Your task to perform on an android device: turn off notifications in google photos Image 0: 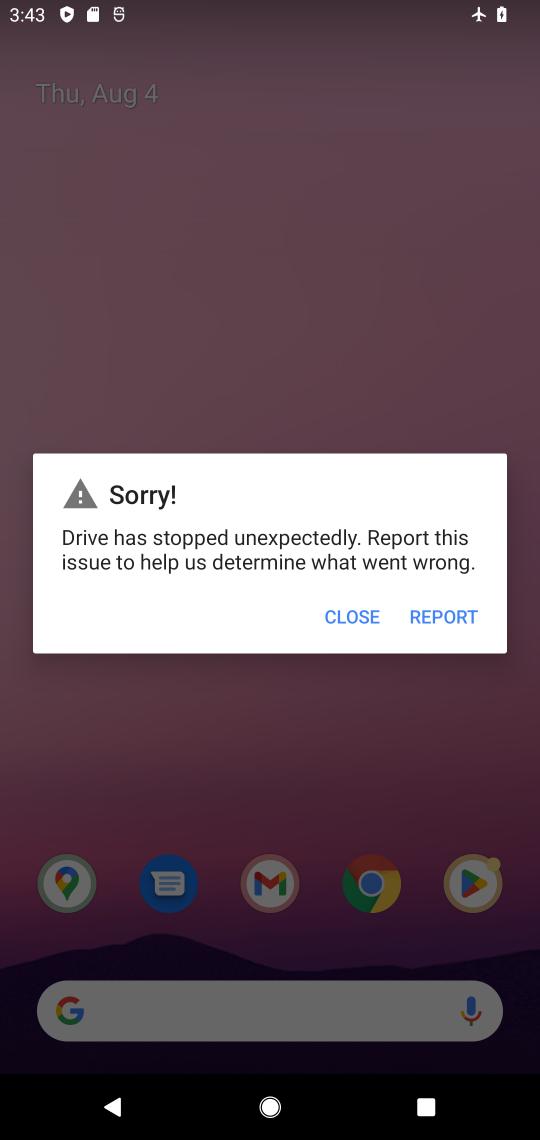
Step 0: press back button
Your task to perform on an android device: turn off notifications in google photos Image 1: 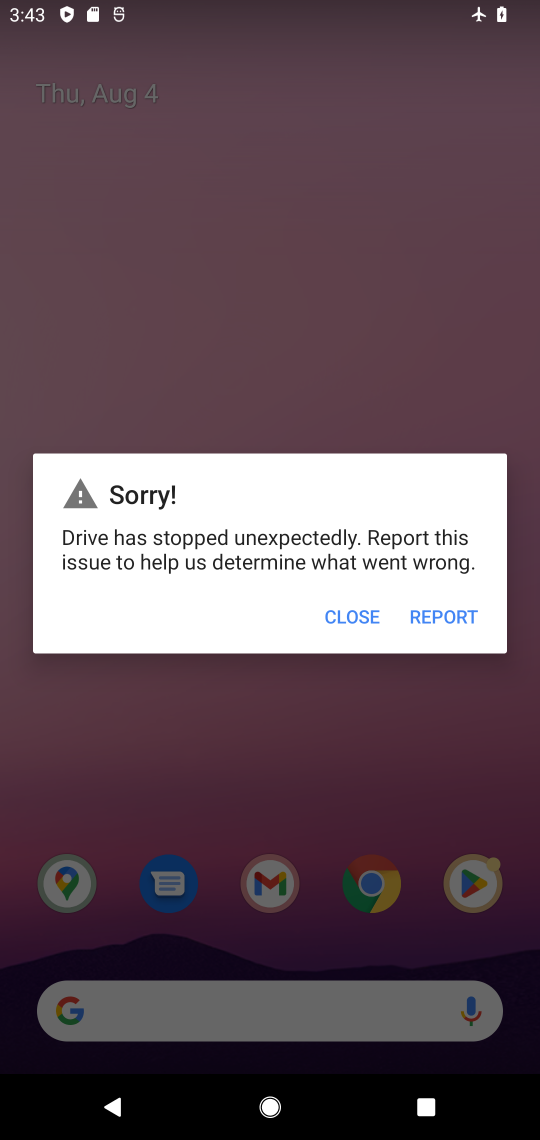
Step 1: click (367, 607)
Your task to perform on an android device: turn off notifications in google photos Image 2: 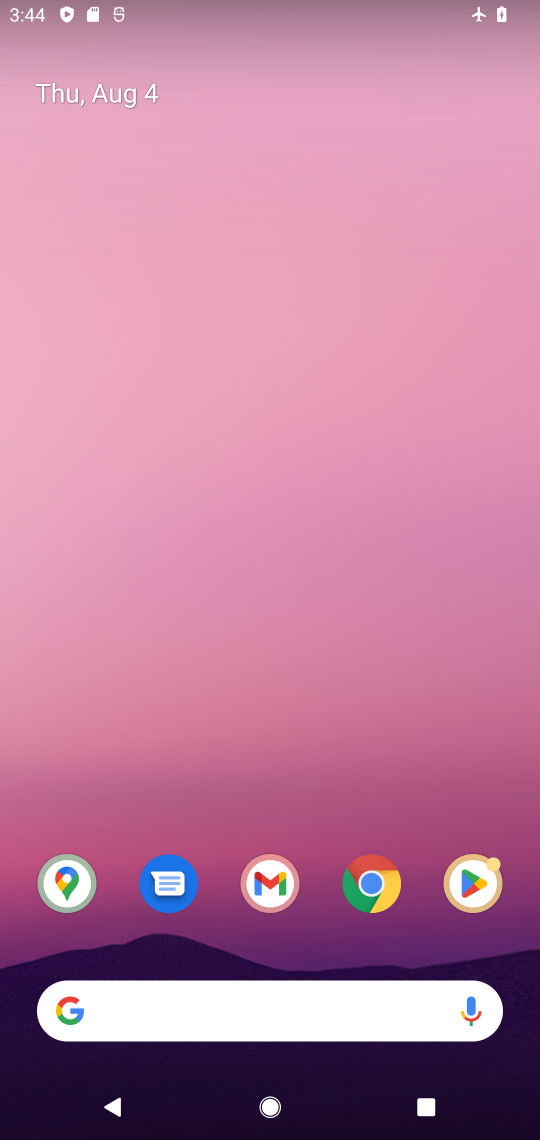
Step 2: drag from (407, 796) to (163, 9)
Your task to perform on an android device: turn off notifications in google photos Image 3: 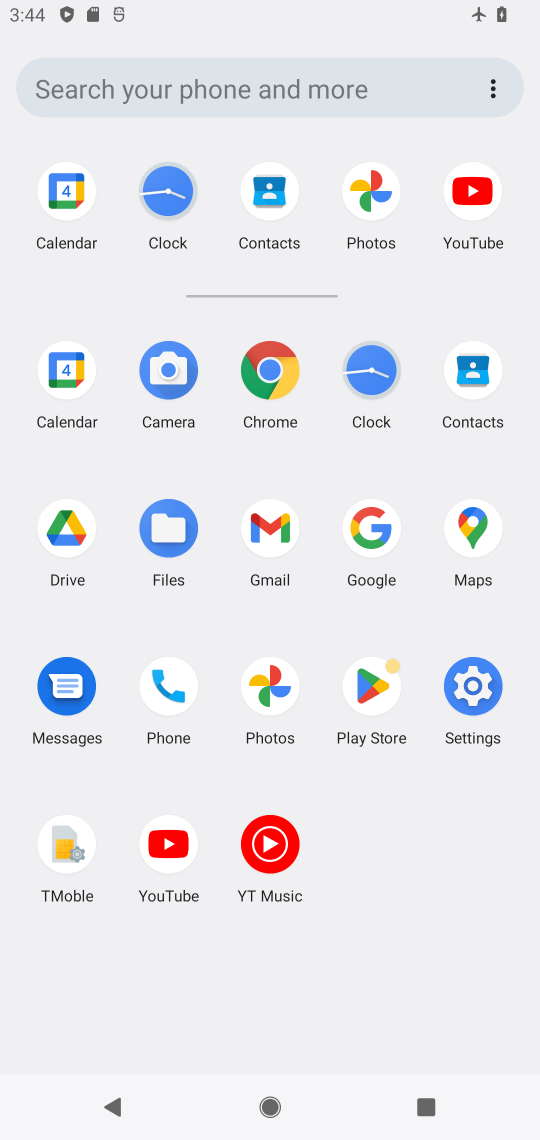
Step 3: click (268, 679)
Your task to perform on an android device: turn off notifications in google photos Image 4: 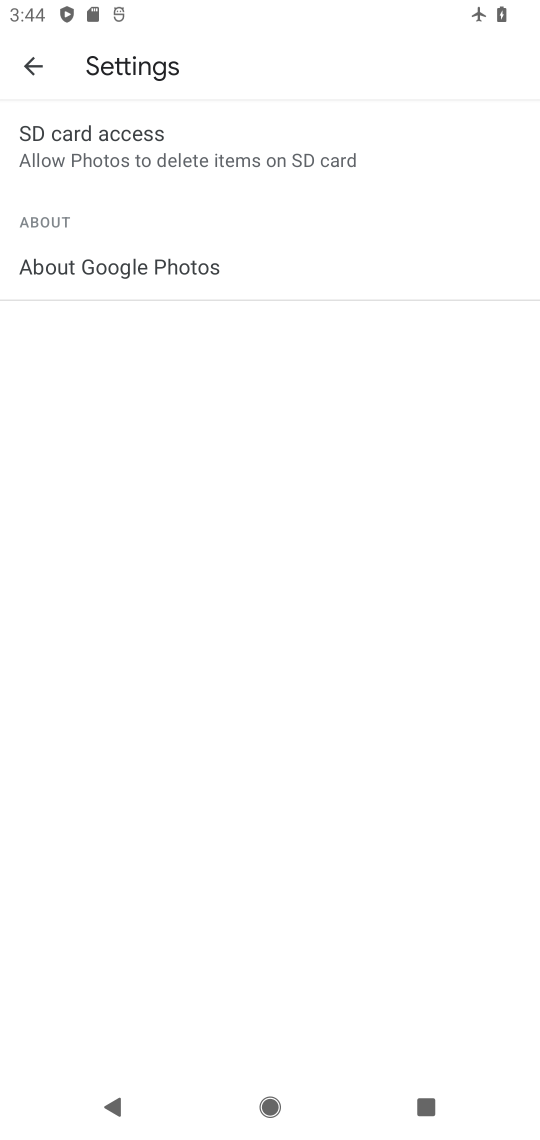
Step 4: press back button
Your task to perform on an android device: turn off notifications in google photos Image 5: 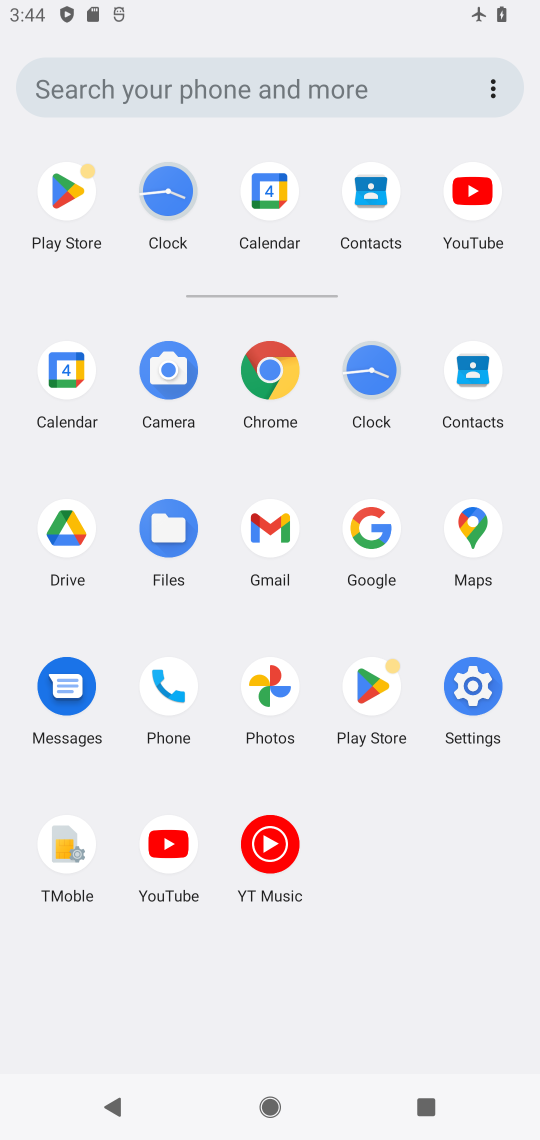
Step 5: click (260, 702)
Your task to perform on an android device: turn off notifications in google photos Image 6: 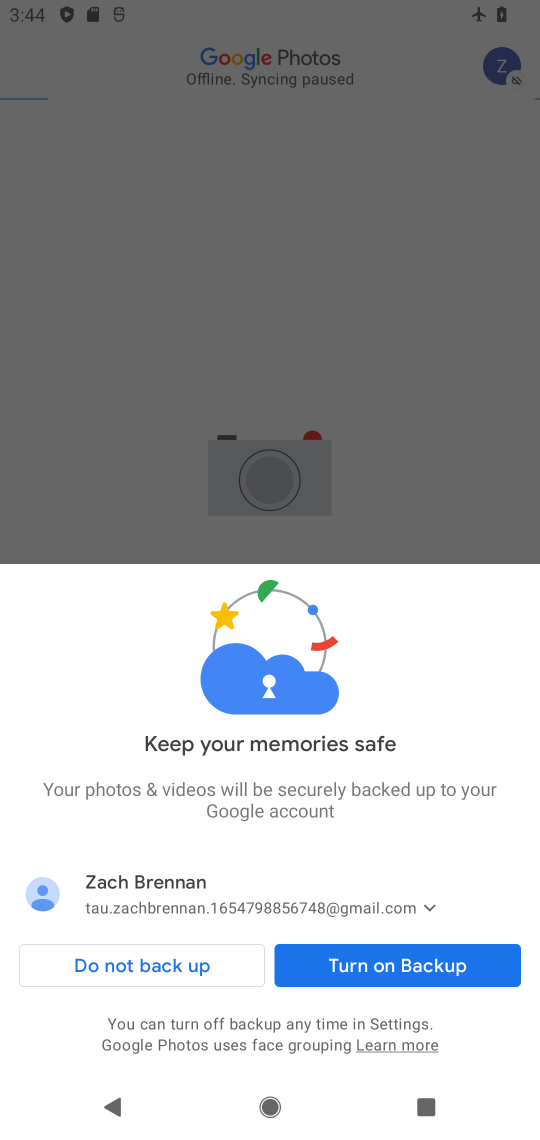
Step 6: click (371, 956)
Your task to perform on an android device: turn off notifications in google photos Image 7: 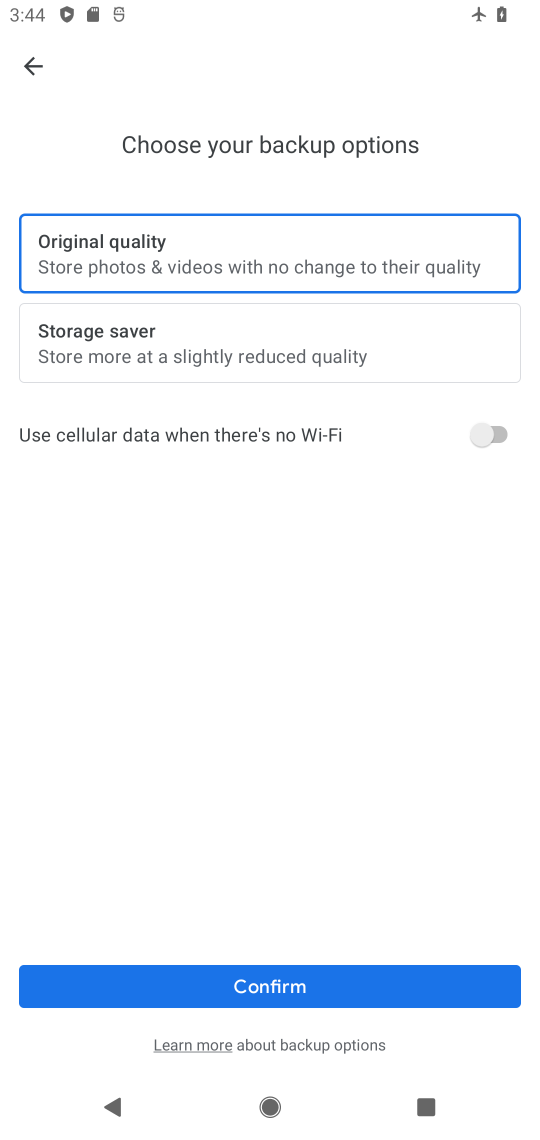
Step 7: click (268, 991)
Your task to perform on an android device: turn off notifications in google photos Image 8: 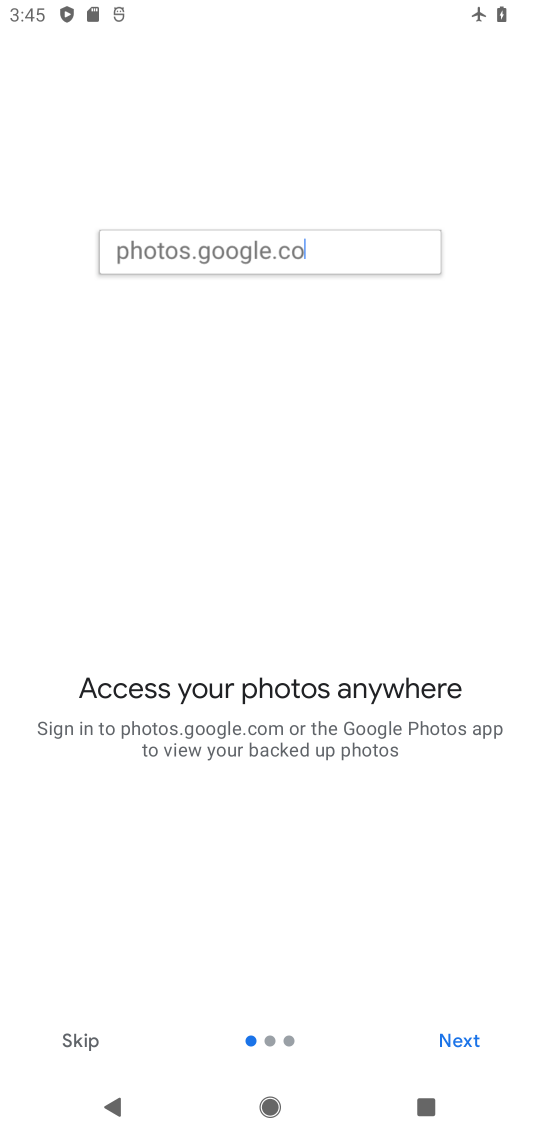
Step 8: click (461, 1041)
Your task to perform on an android device: turn off notifications in google photos Image 9: 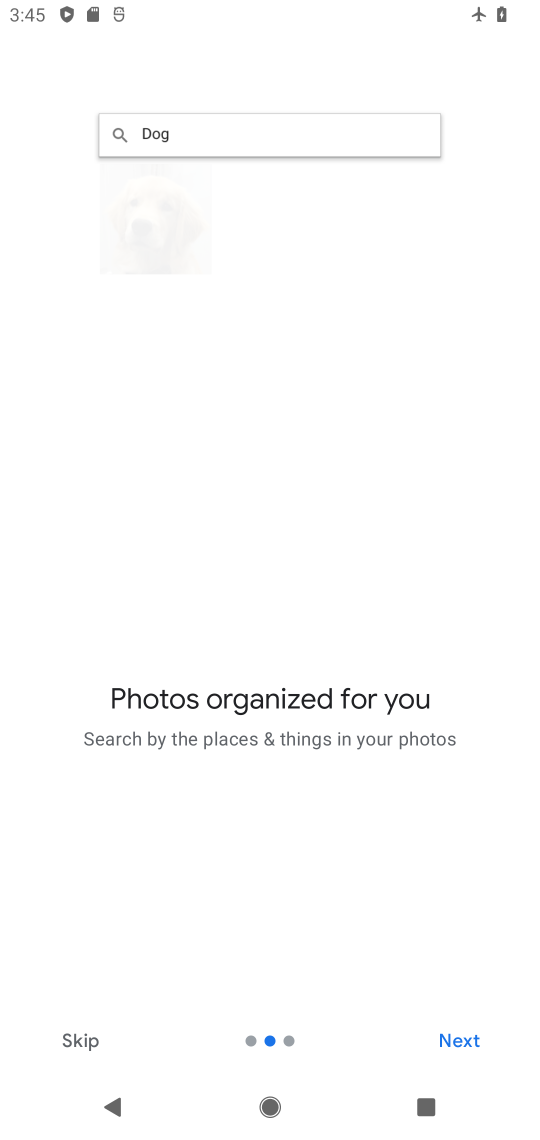
Step 9: click (461, 1041)
Your task to perform on an android device: turn off notifications in google photos Image 10: 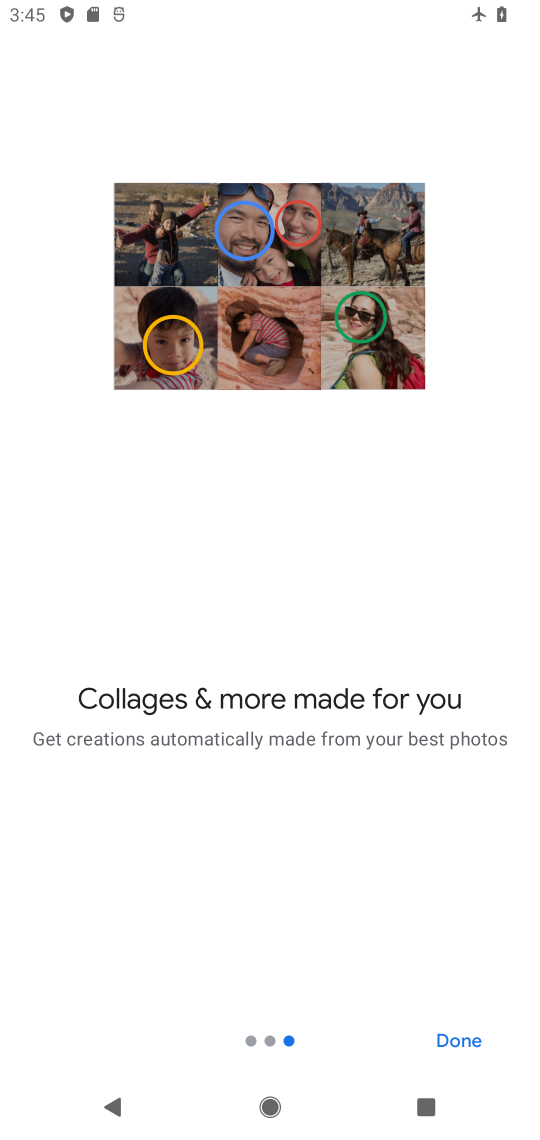
Step 10: click (461, 1041)
Your task to perform on an android device: turn off notifications in google photos Image 11: 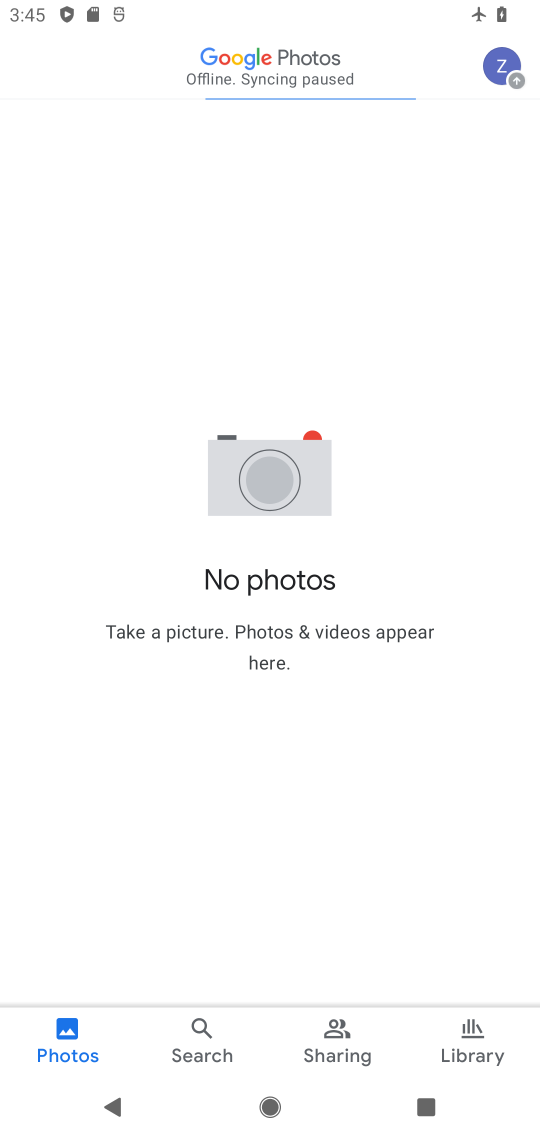
Step 11: click (493, 64)
Your task to perform on an android device: turn off notifications in google photos Image 12: 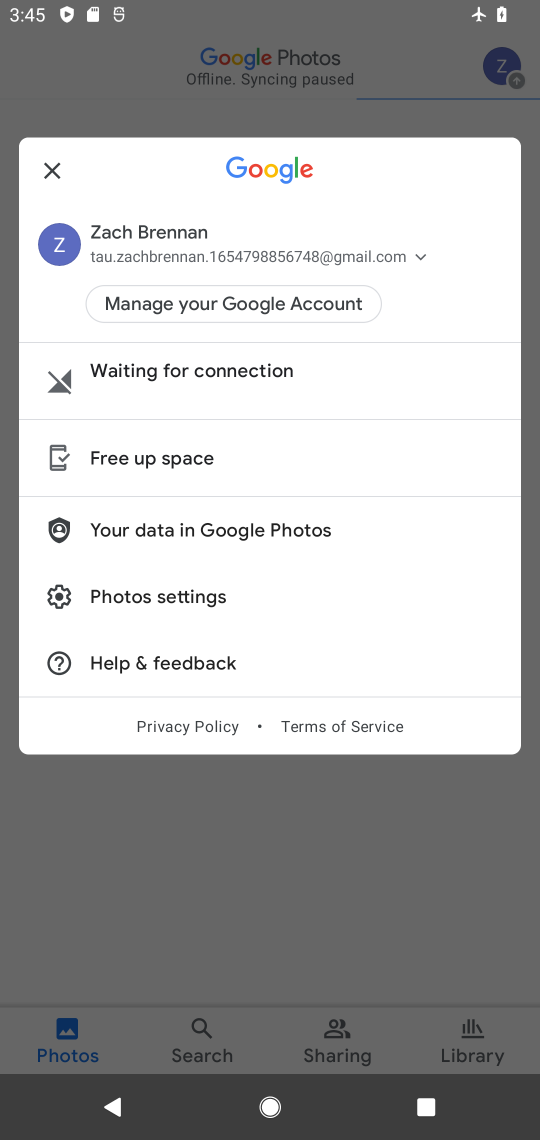
Step 12: click (127, 602)
Your task to perform on an android device: turn off notifications in google photos Image 13: 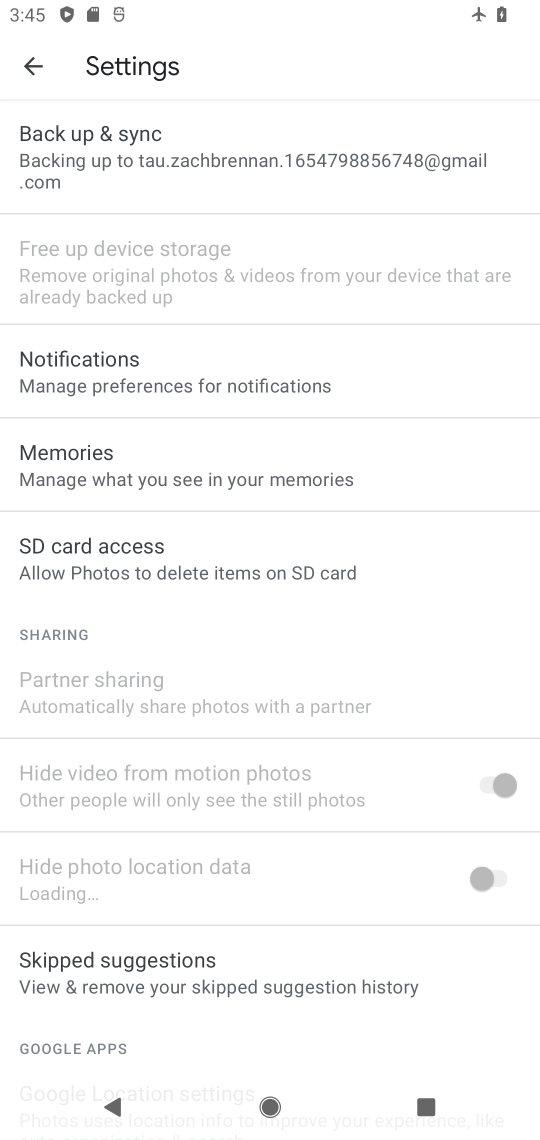
Step 13: click (177, 367)
Your task to perform on an android device: turn off notifications in google photos Image 14: 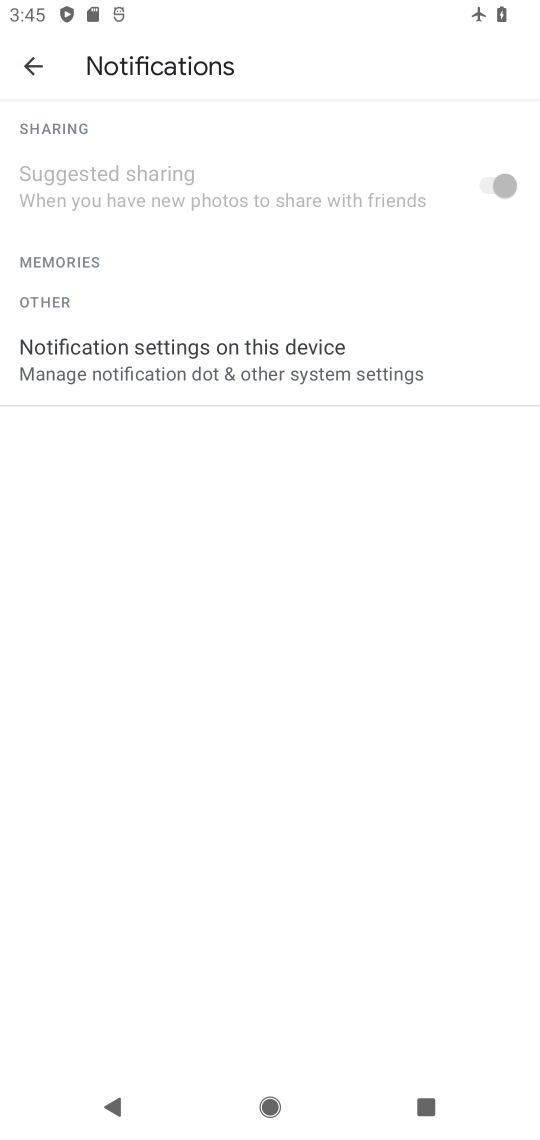
Step 14: click (469, 193)
Your task to perform on an android device: turn off notifications in google photos Image 15: 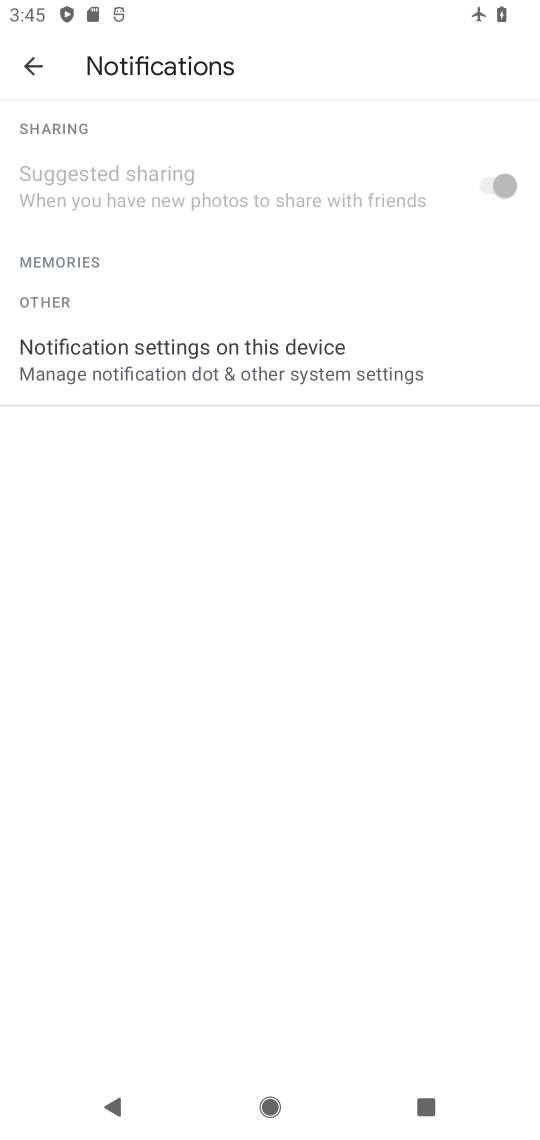
Step 15: task complete